Your task to perform on an android device: clear all cookies in the chrome app Image 0: 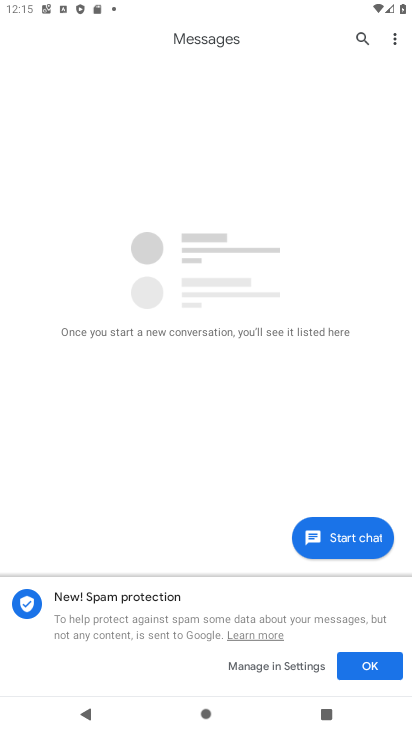
Step 0: press home button
Your task to perform on an android device: clear all cookies in the chrome app Image 1: 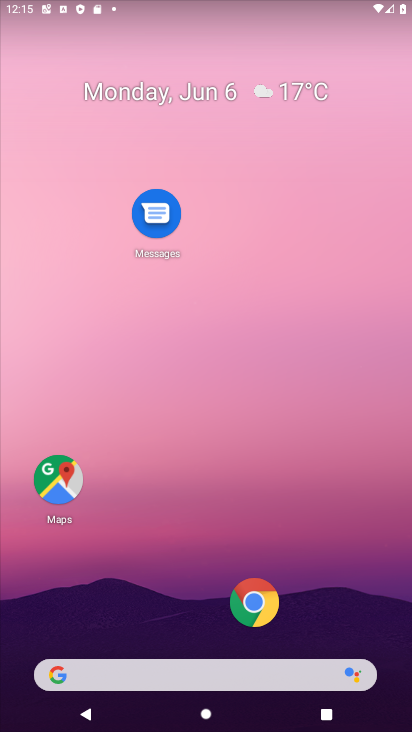
Step 1: click (264, 615)
Your task to perform on an android device: clear all cookies in the chrome app Image 2: 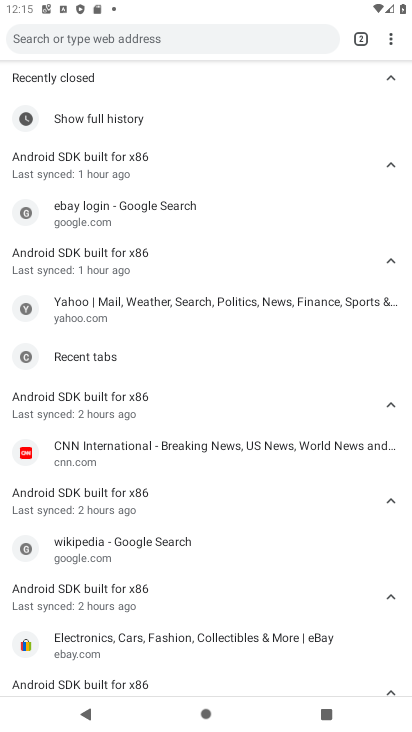
Step 2: task complete